Your task to perform on an android device: Do I have any events today? Image 0: 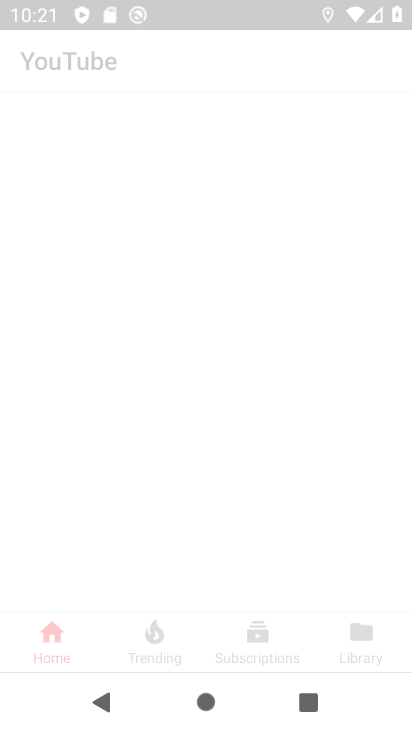
Step 0: click (278, 533)
Your task to perform on an android device: Do I have any events today? Image 1: 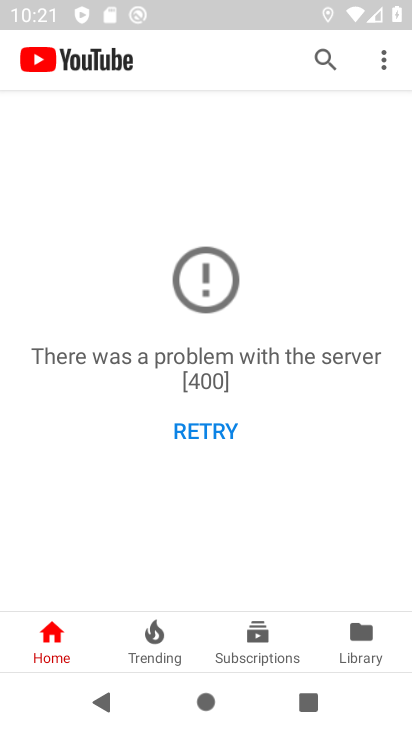
Step 1: press home button
Your task to perform on an android device: Do I have any events today? Image 2: 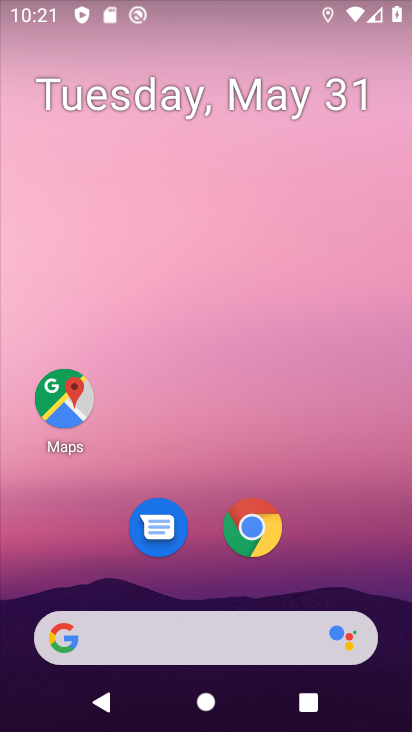
Step 2: drag from (391, 597) to (303, 175)
Your task to perform on an android device: Do I have any events today? Image 3: 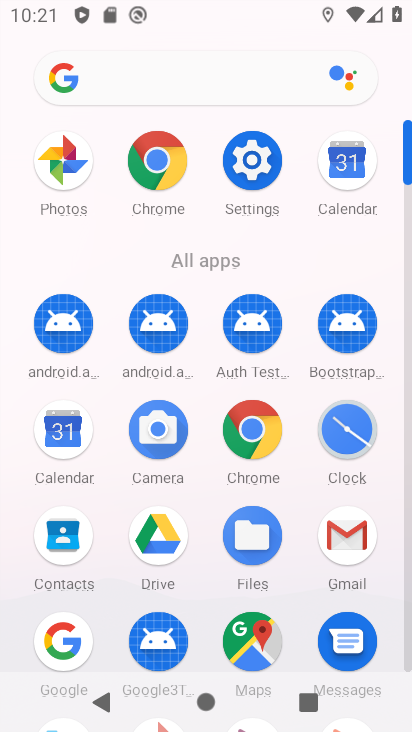
Step 3: click (343, 170)
Your task to perform on an android device: Do I have any events today? Image 4: 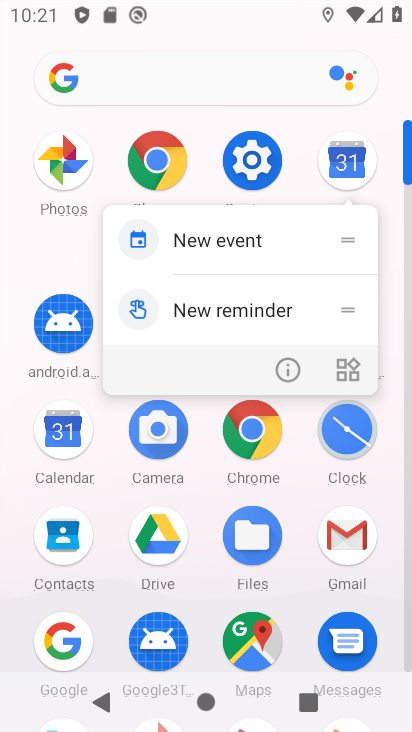
Step 4: click (343, 170)
Your task to perform on an android device: Do I have any events today? Image 5: 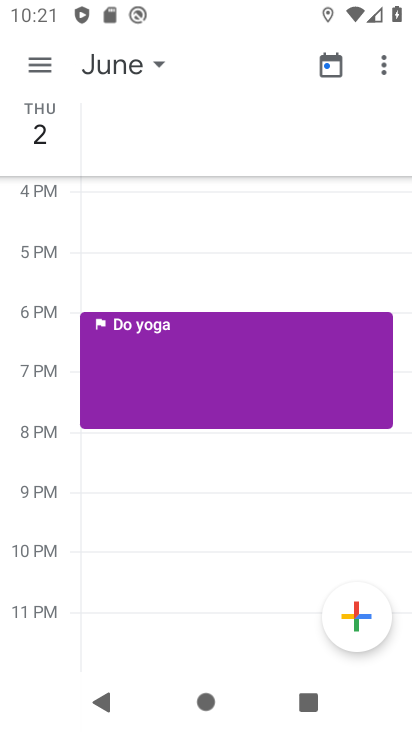
Step 5: click (39, 66)
Your task to perform on an android device: Do I have any events today? Image 6: 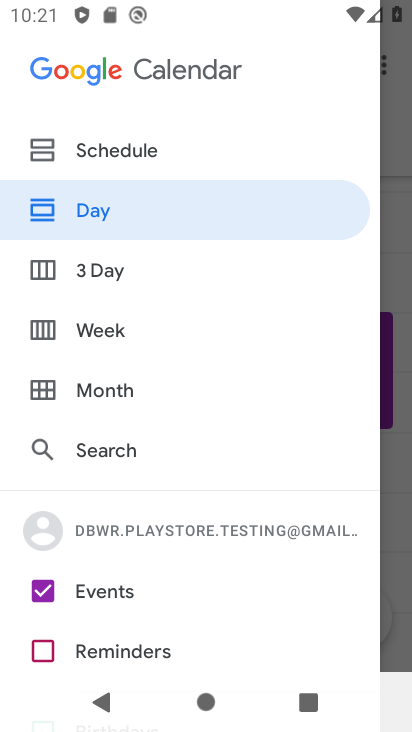
Step 6: click (110, 226)
Your task to perform on an android device: Do I have any events today? Image 7: 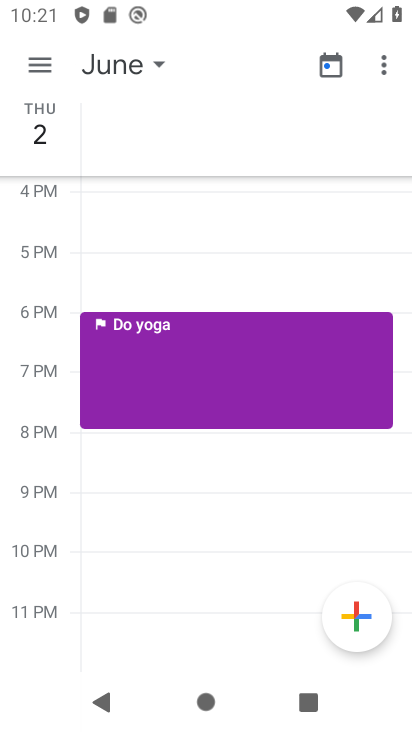
Step 7: click (113, 80)
Your task to perform on an android device: Do I have any events today? Image 8: 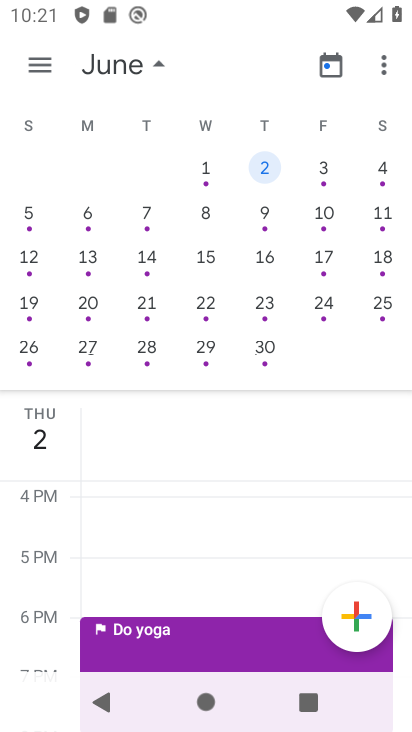
Step 8: click (206, 159)
Your task to perform on an android device: Do I have any events today? Image 9: 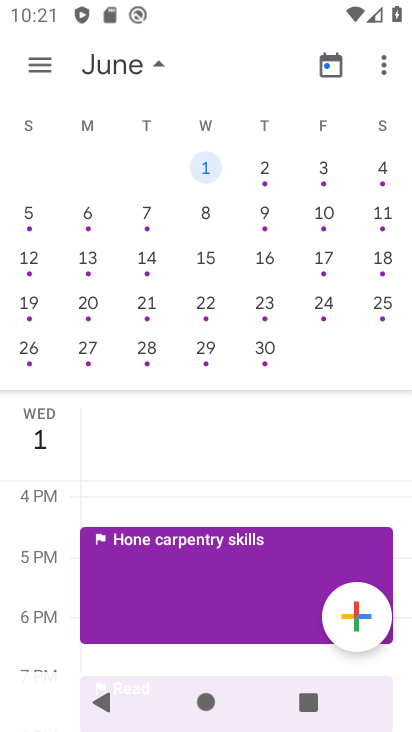
Step 9: click (103, 64)
Your task to perform on an android device: Do I have any events today? Image 10: 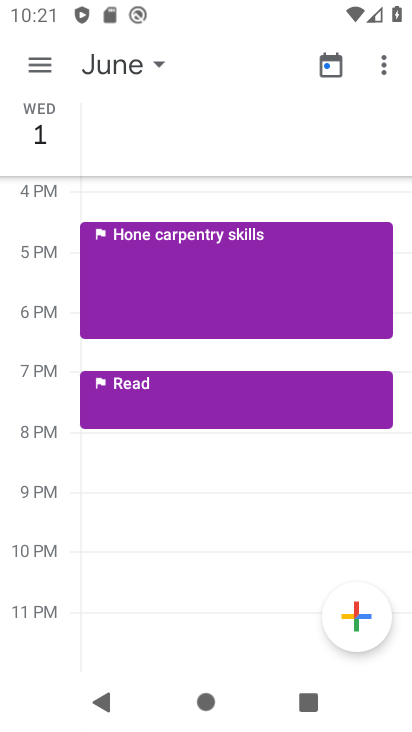
Step 10: task complete